Your task to perform on an android device: open app "LinkedIn" (install if not already installed) Image 0: 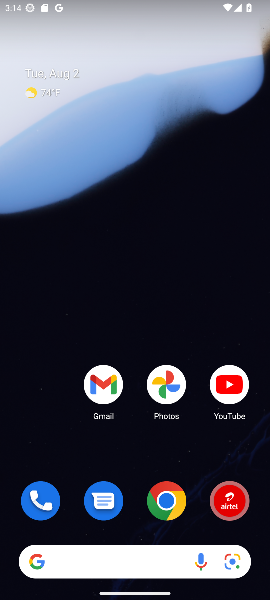
Step 0: drag from (136, 443) to (137, 39)
Your task to perform on an android device: open app "LinkedIn" (install if not already installed) Image 1: 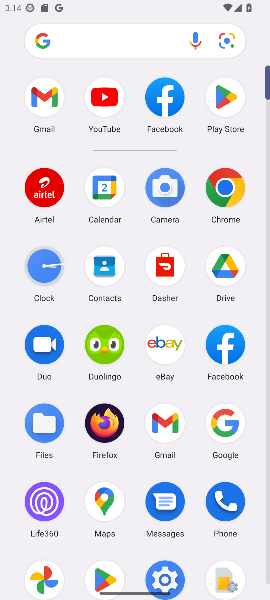
Step 1: click (222, 106)
Your task to perform on an android device: open app "LinkedIn" (install if not already installed) Image 2: 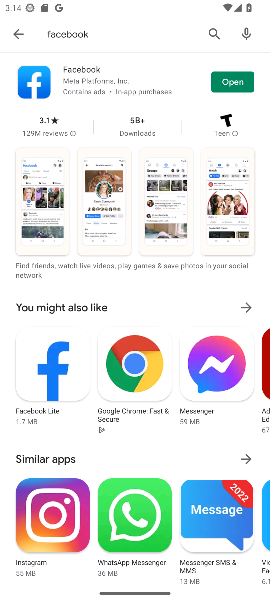
Step 2: click (208, 36)
Your task to perform on an android device: open app "LinkedIn" (install if not already installed) Image 3: 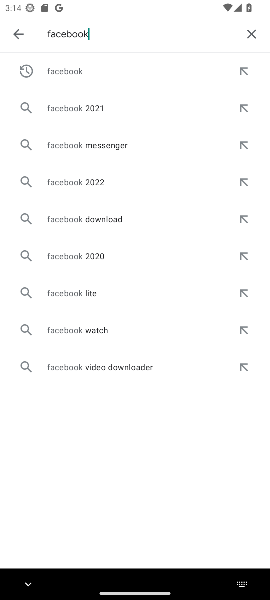
Step 3: click (250, 39)
Your task to perform on an android device: open app "LinkedIn" (install if not already installed) Image 4: 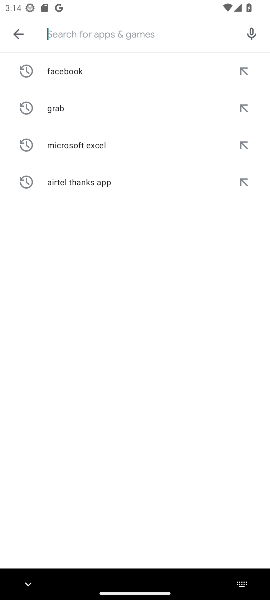
Step 4: type "LinkedIn"
Your task to perform on an android device: open app "LinkedIn" (install if not already installed) Image 5: 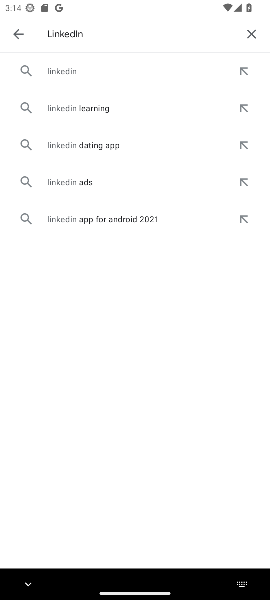
Step 5: click (53, 74)
Your task to perform on an android device: open app "LinkedIn" (install if not already installed) Image 6: 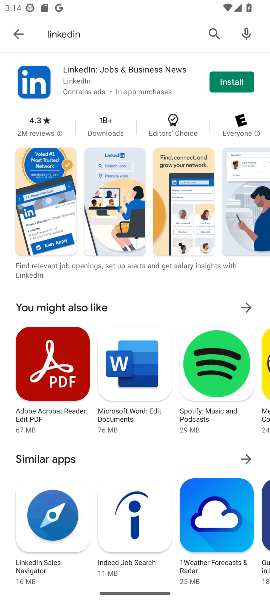
Step 6: click (242, 88)
Your task to perform on an android device: open app "LinkedIn" (install if not already installed) Image 7: 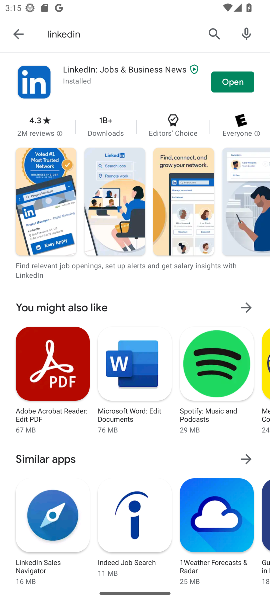
Step 7: click (221, 89)
Your task to perform on an android device: open app "LinkedIn" (install if not already installed) Image 8: 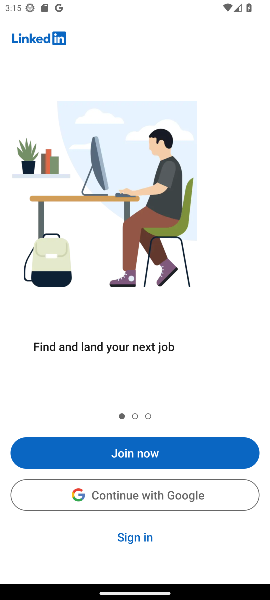
Step 8: task complete